Your task to perform on an android device: turn on showing notifications on the lock screen Image 0: 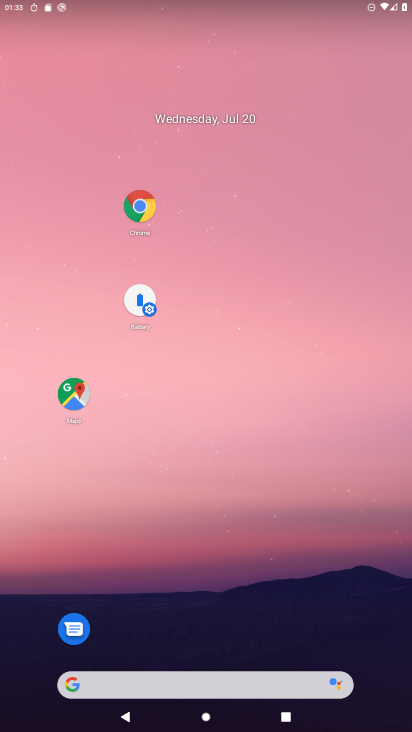
Step 0: drag from (174, 633) to (260, 190)
Your task to perform on an android device: turn on showing notifications on the lock screen Image 1: 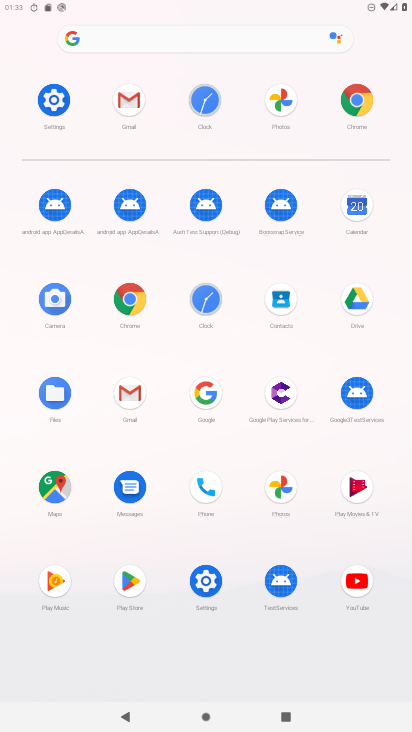
Step 1: click (201, 580)
Your task to perform on an android device: turn on showing notifications on the lock screen Image 2: 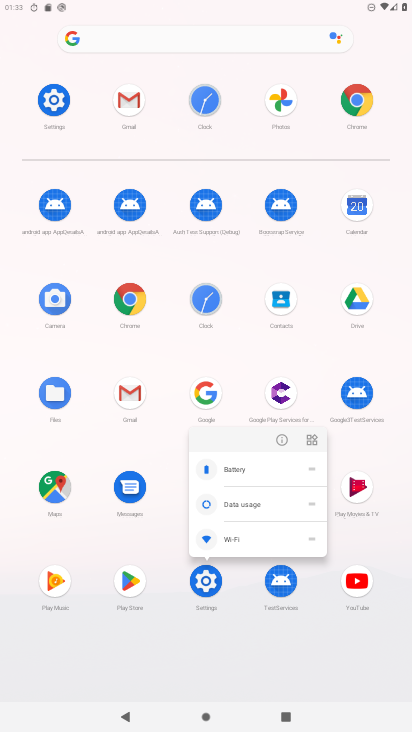
Step 2: click (283, 436)
Your task to perform on an android device: turn on showing notifications on the lock screen Image 3: 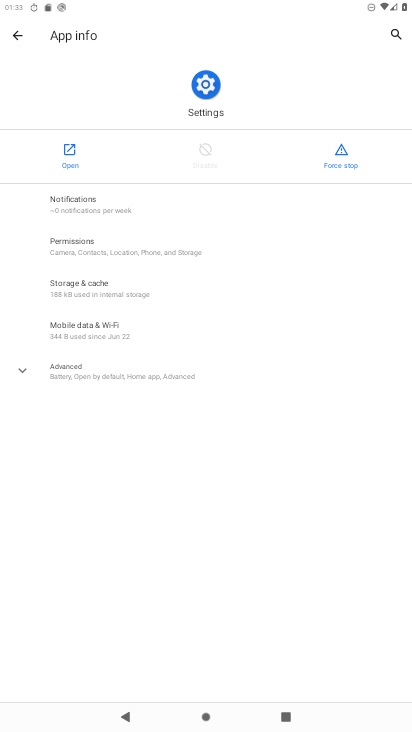
Step 3: click (63, 160)
Your task to perform on an android device: turn on showing notifications on the lock screen Image 4: 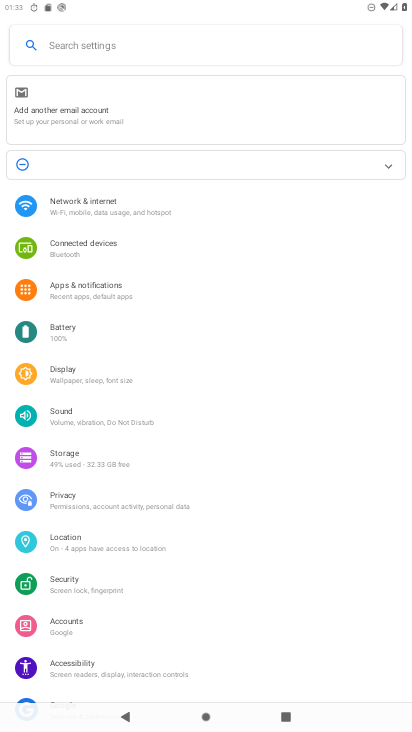
Step 4: click (125, 296)
Your task to perform on an android device: turn on showing notifications on the lock screen Image 5: 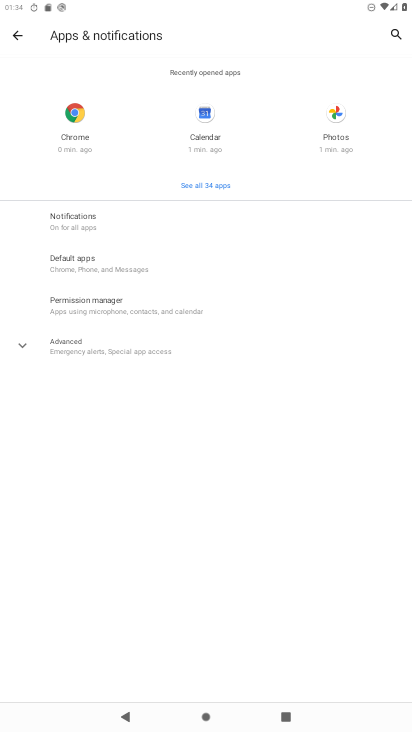
Step 5: click (115, 225)
Your task to perform on an android device: turn on showing notifications on the lock screen Image 6: 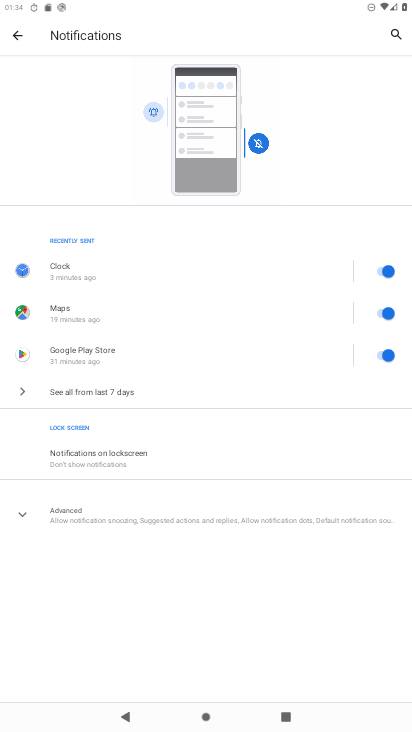
Step 6: click (148, 461)
Your task to perform on an android device: turn on showing notifications on the lock screen Image 7: 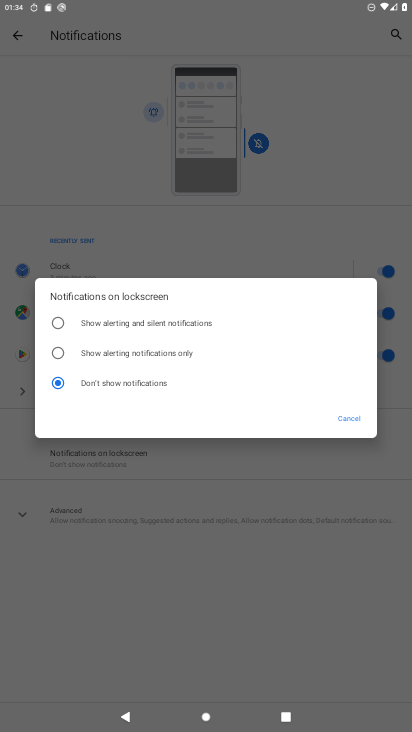
Step 7: drag from (157, 448) to (270, 148)
Your task to perform on an android device: turn on showing notifications on the lock screen Image 8: 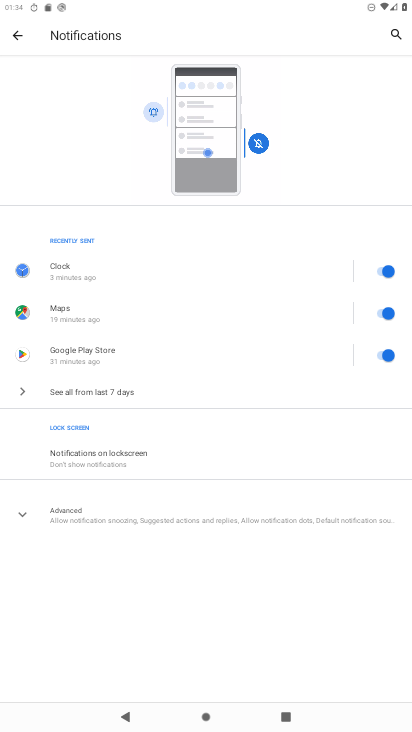
Step 8: click (83, 453)
Your task to perform on an android device: turn on showing notifications on the lock screen Image 9: 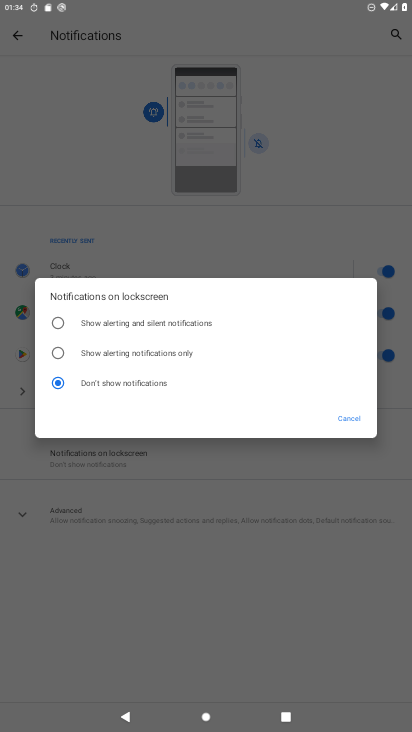
Step 9: click (57, 325)
Your task to perform on an android device: turn on showing notifications on the lock screen Image 10: 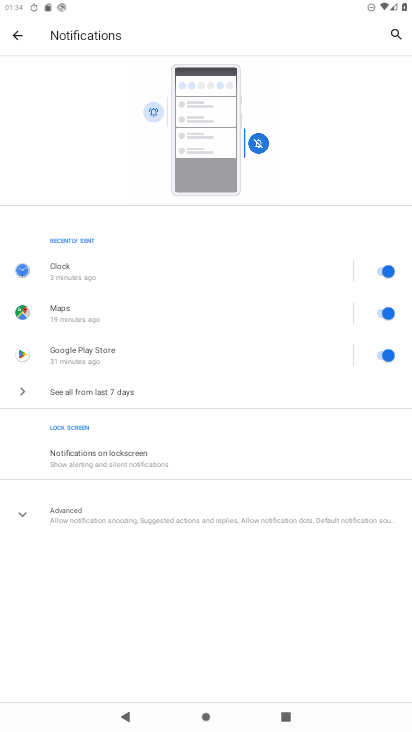
Step 10: task complete